Your task to perform on an android device: Open wifi settings Image 0: 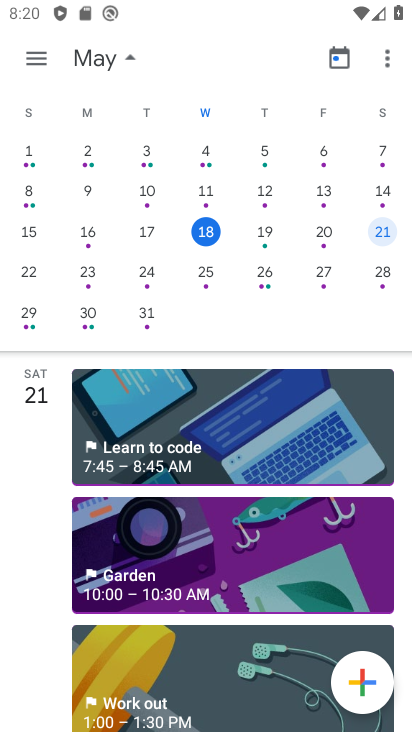
Step 0: press home button
Your task to perform on an android device: Open wifi settings Image 1: 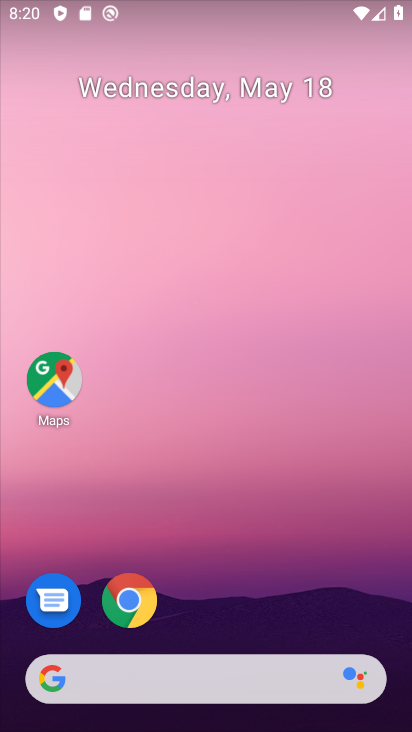
Step 1: drag from (75, 508) to (295, 172)
Your task to perform on an android device: Open wifi settings Image 2: 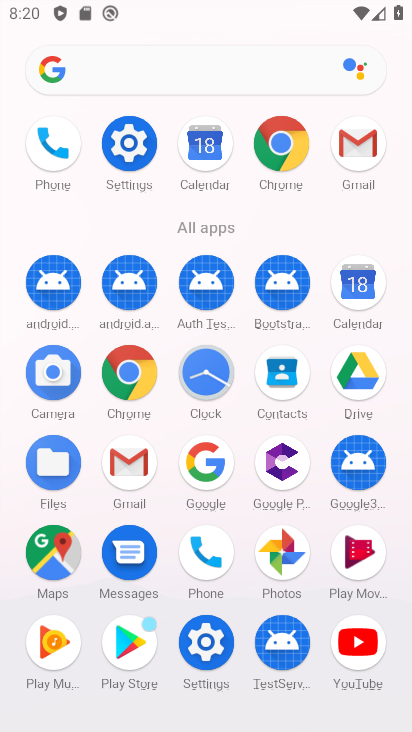
Step 2: click (139, 140)
Your task to perform on an android device: Open wifi settings Image 3: 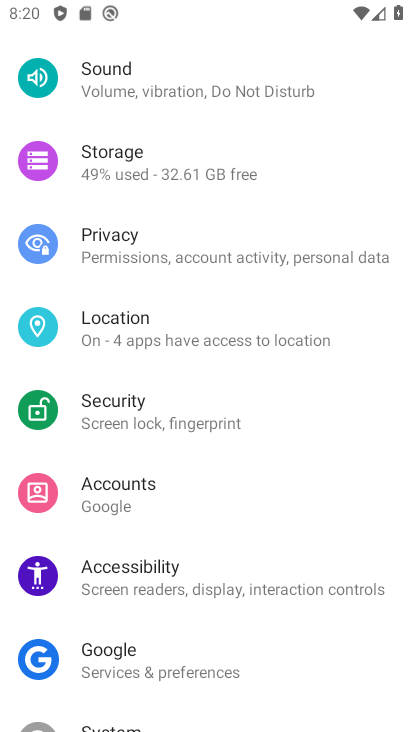
Step 3: task complete